Your task to perform on an android device: Open ESPN.com Image 0: 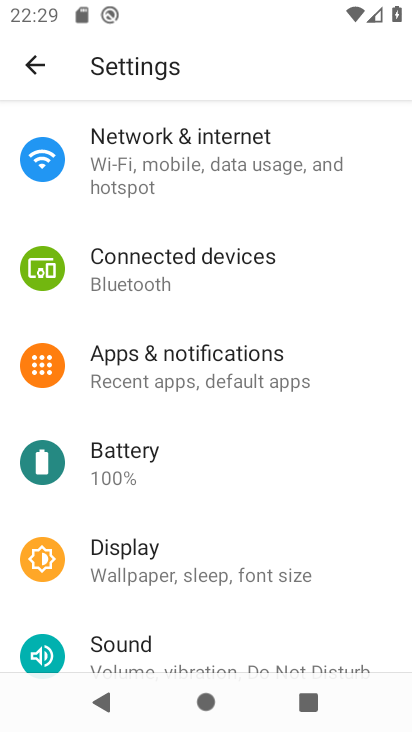
Step 0: press home button
Your task to perform on an android device: Open ESPN.com Image 1: 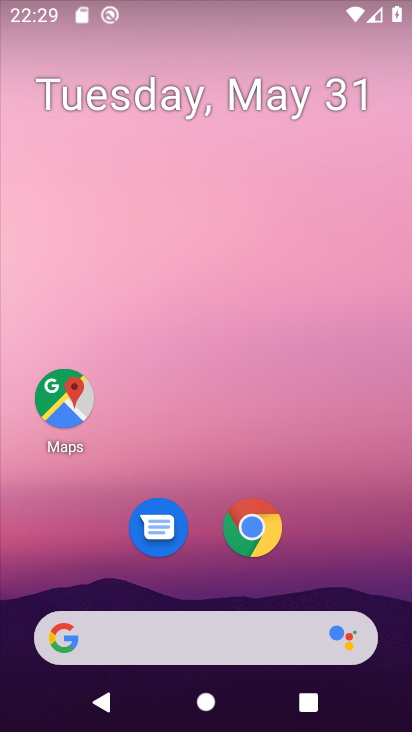
Step 1: click (254, 530)
Your task to perform on an android device: Open ESPN.com Image 2: 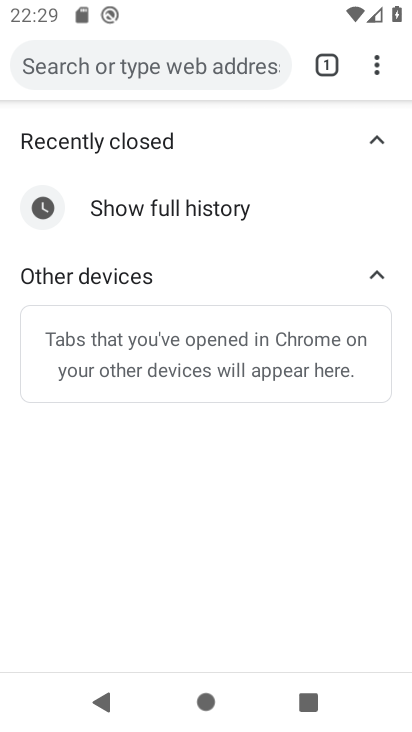
Step 2: press back button
Your task to perform on an android device: Open ESPN.com Image 3: 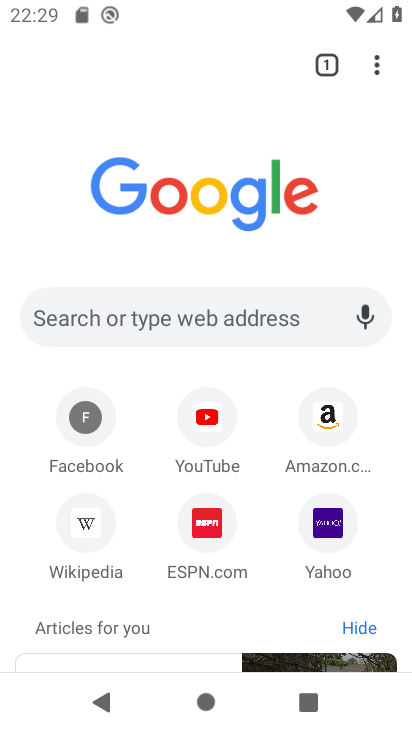
Step 3: click (201, 533)
Your task to perform on an android device: Open ESPN.com Image 4: 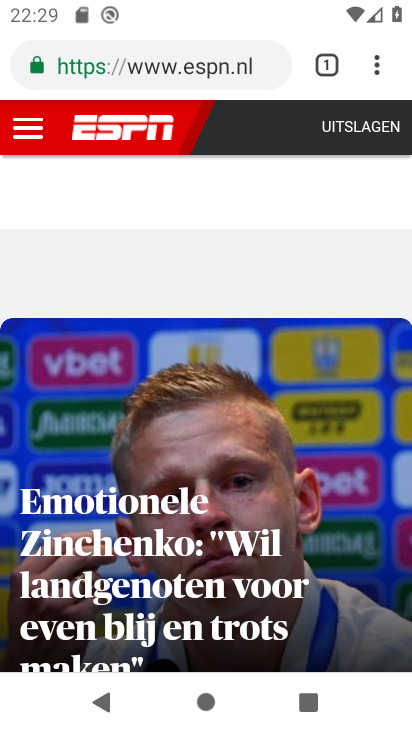
Step 4: task complete